Your task to perform on an android device: What's the weather? Image 0: 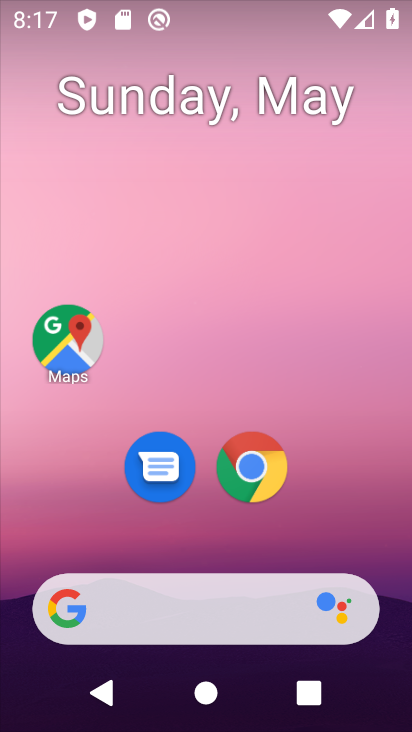
Step 0: drag from (8, 173) to (411, 167)
Your task to perform on an android device: What's the weather? Image 1: 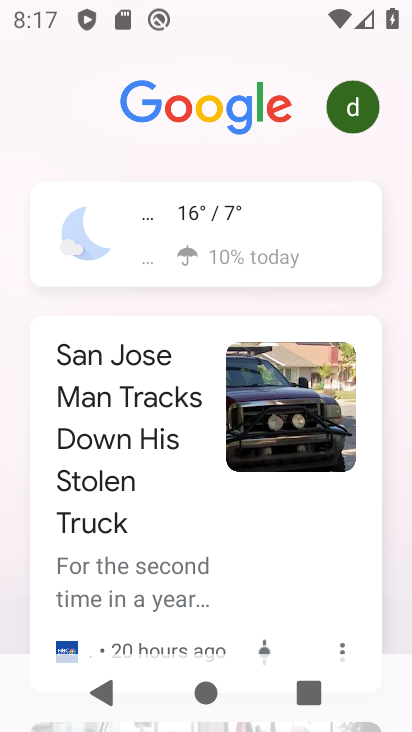
Step 1: click (244, 230)
Your task to perform on an android device: What's the weather? Image 2: 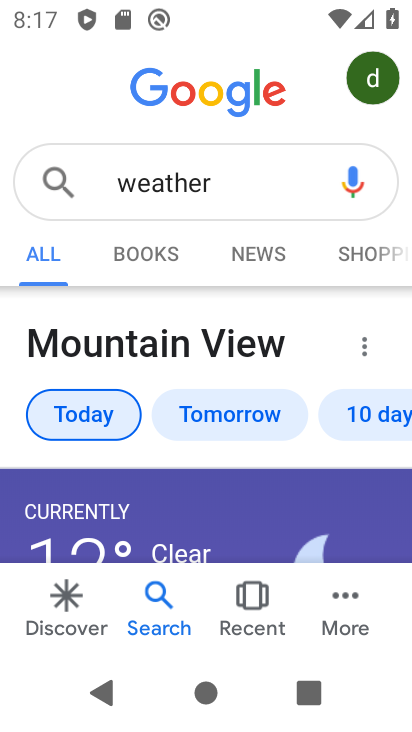
Step 2: task complete